Your task to perform on an android device: Search for "macbook" on ebay, select the first entry, add it to the cart, then select checkout. Image 0: 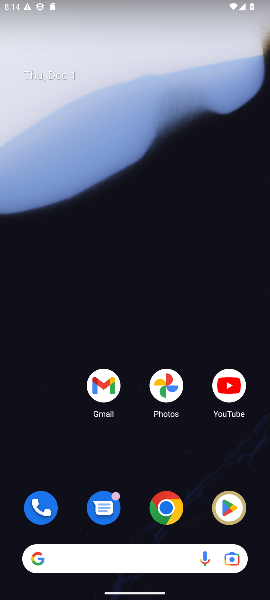
Step 0: click (161, 509)
Your task to perform on an android device: Search for "macbook" on ebay, select the first entry, add it to the cart, then select checkout. Image 1: 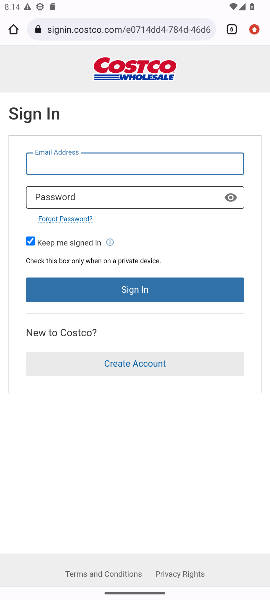
Step 1: click (229, 32)
Your task to perform on an android device: Search for "macbook" on ebay, select the first entry, add it to the cart, then select checkout. Image 2: 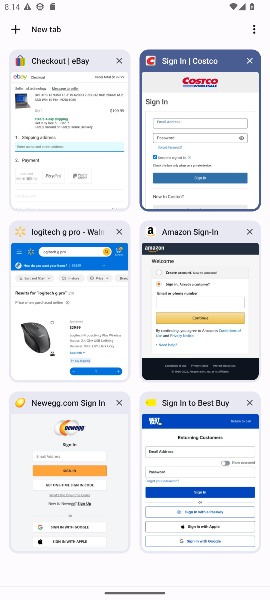
Step 2: click (52, 132)
Your task to perform on an android device: Search for "macbook" on ebay, select the first entry, add it to the cart, then select checkout. Image 3: 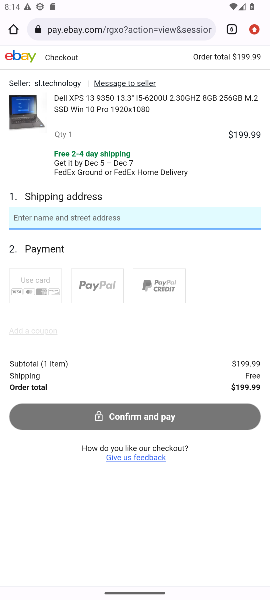
Step 3: drag from (207, 129) to (205, 68)
Your task to perform on an android device: Search for "macbook" on ebay, select the first entry, add it to the cart, then select checkout. Image 4: 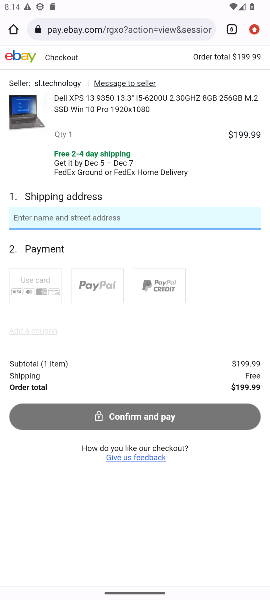
Step 4: press back button
Your task to perform on an android device: Search for "macbook" on ebay, select the first entry, add it to the cart, then select checkout. Image 5: 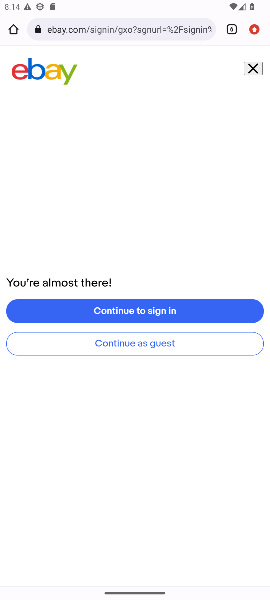
Step 5: press back button
Your task to perform on an android device: Search for "macbook" on ebay, select the first entry, add it to the cart, then select checkout. Image 6: 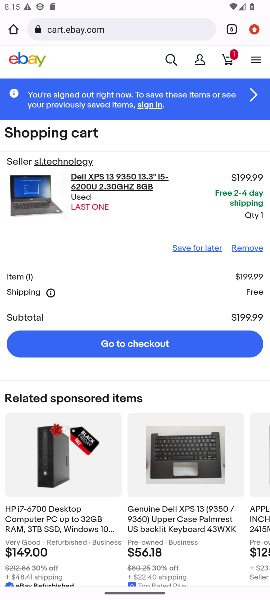
Step 6: click (169, 58)
Your task to perform on an android device: Search for "macbook" on ebay, select the first entry, add it to the cart, then select checkout. Image 7: 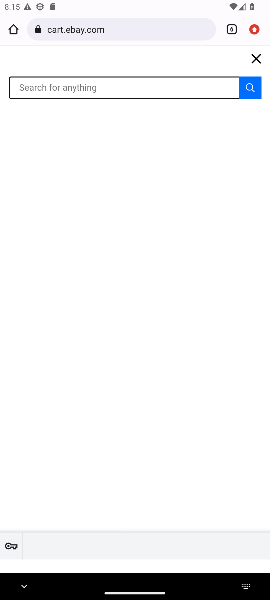
Step 7: type "macbook"
Your task to perform on an android device: Search for "macbook" on ebay, select the first entry, add it to the cart, then select checkout. Image 8: 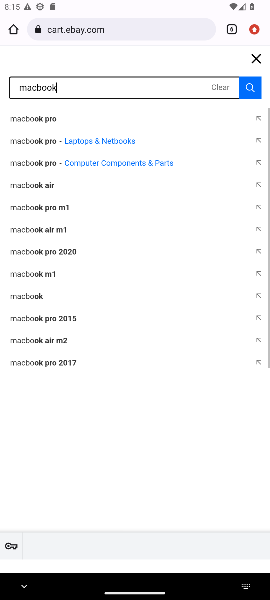
Step 8: click (252, 88)
Your task to perform on an android device: Search for "macbook" on ebay, select the first entry, add it to the cart, then select checkout. Image 9: 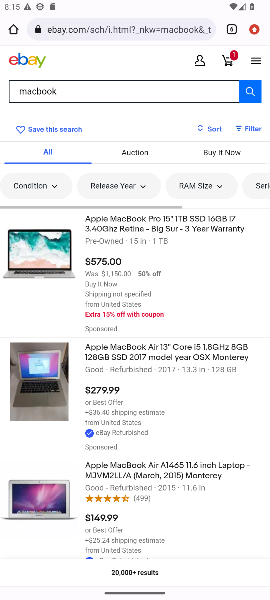
Step 9: click (156, 220)
Your task to perform on an android device: Search for "macbook" on ebay, select the first entry, add it to the cart, then select checkout. Image 10: 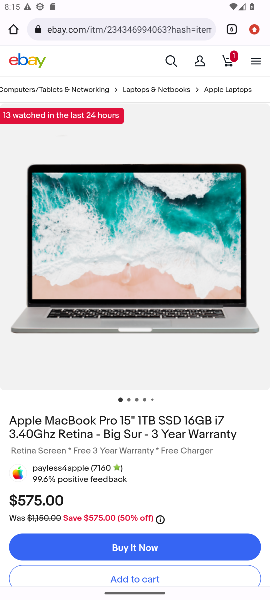
Step 10: click (137, 578)
Your task to perform on an android device: Search for "macbook" on ebay, select the first entry, add it to the cart, then select checkout. Image 11: 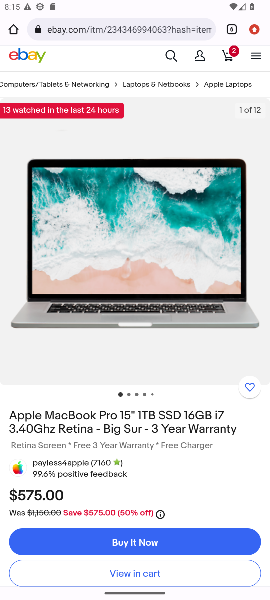
Step 11: click (137, 578)
Your task to perform on an android device: Search for "macbook" on ebay, select the first entry, add it to the cart, then select checkout. Image 12: 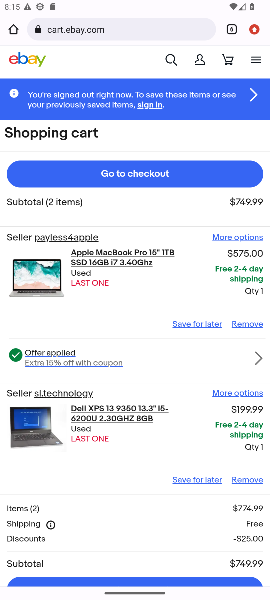
Step 12: drag from (140, 566) to (142, 458)
Your task to perform on an android device: Search for "macbook" on ebay, select the first entry, add it to the cart, then select checkout. Image 13: 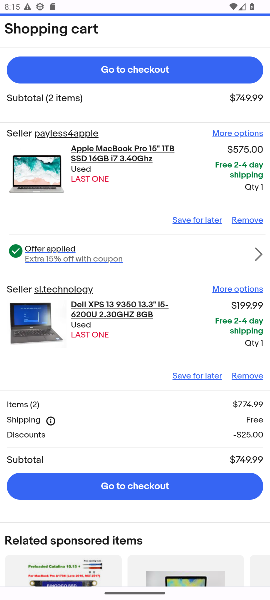
Step 13: click (140, 485)
Your task to perform on an android device: Search for "macbook" on ebay, select the first entry, add it to the cart, then select checkout. Image 14: 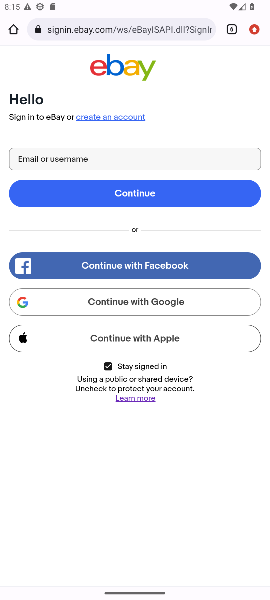
Step 14: task complete